Your task to perform on an android device: Open accessibility settings Image 0: 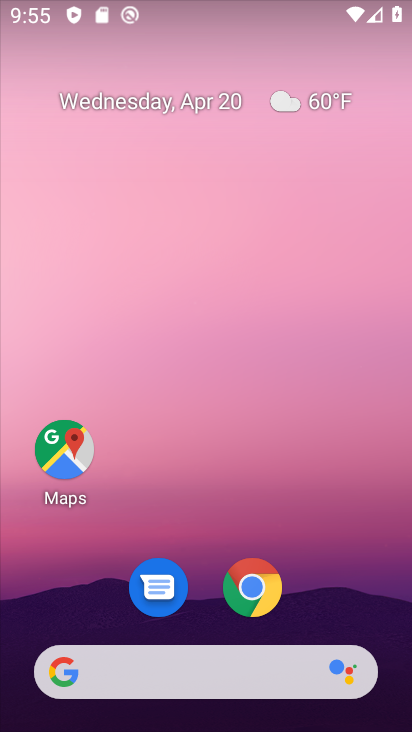
Step 0: drag from (314, 605) to (266, 86)
Your task to perform on an android device: Open accessibility settings Image 1: 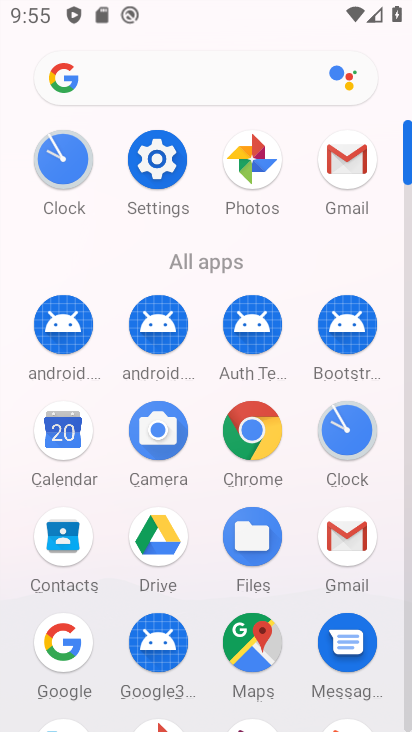
Step 1: click (161, 157)
Your task to perform on an android device: Open accessibility settings Image 2: 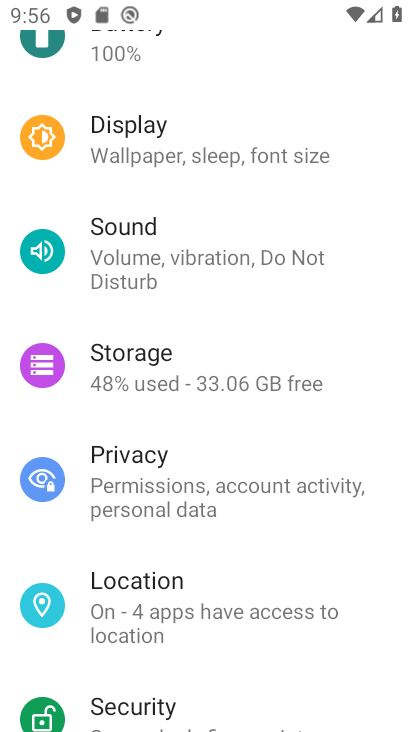
Step 2: drag from (193, 635) to (200, 239)
Your task to perform on an android device: Open accessibility settings Image 3: 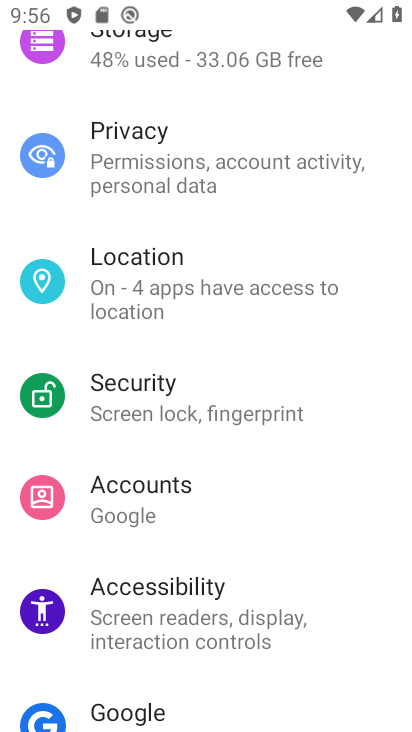
Step 3: click (139, 633)
Your task to perform on an android device: Open accessibility settings Image 4: 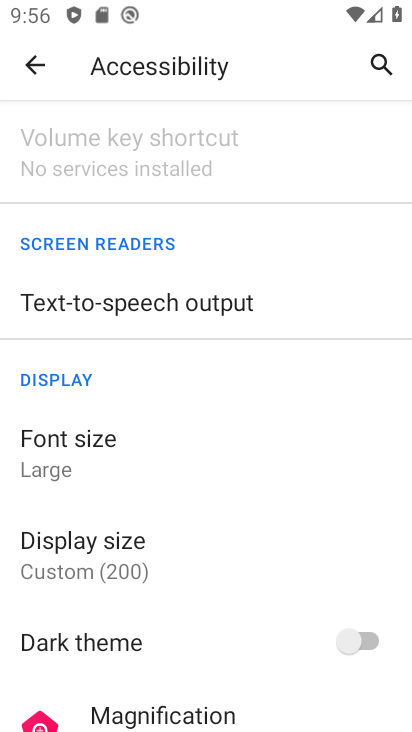
Step 4: task complete